Your task to perform on an android device: turn on showing notifications on the lock screen Image 0: 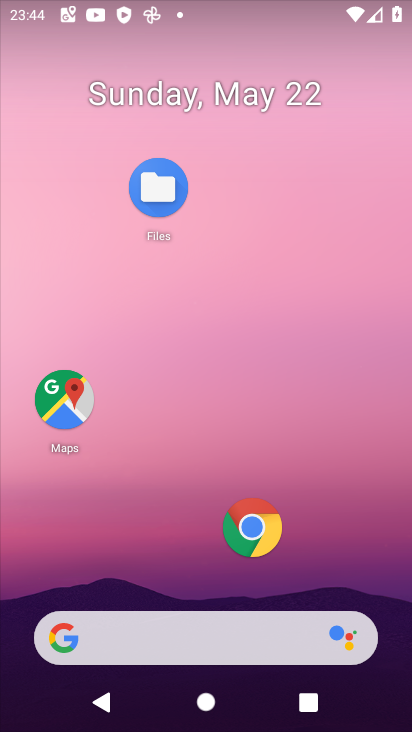
Step 0: drag from (130, 265) to (161, 19)
Your task to perform on an android device: turn on showing notifications on the lock screen Image 1: 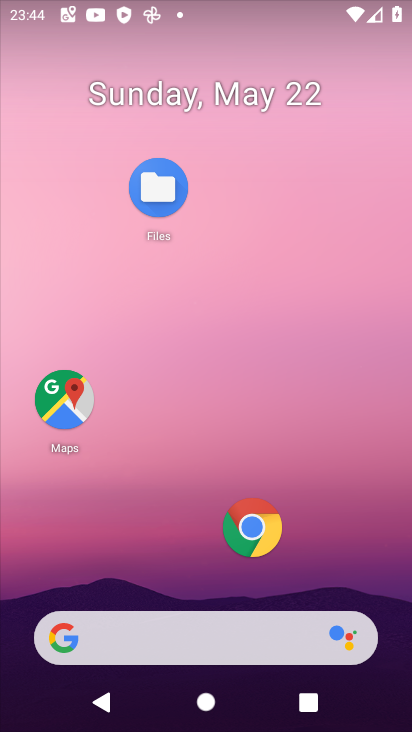
Step 1: drag from (342, 438) to (187, 28)
Your task to perform on an android device: turn on showing notifications on the lock screen Image 2: 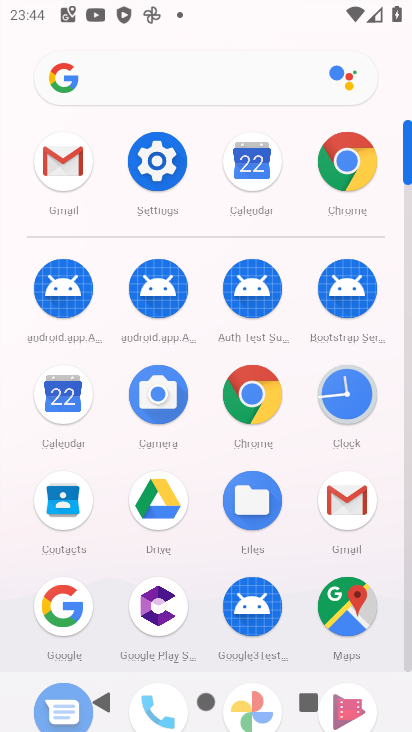
Step 2: click (153, 151)
Your task to perform on an android device: turn on showing notifications on the lock screen Image 3: 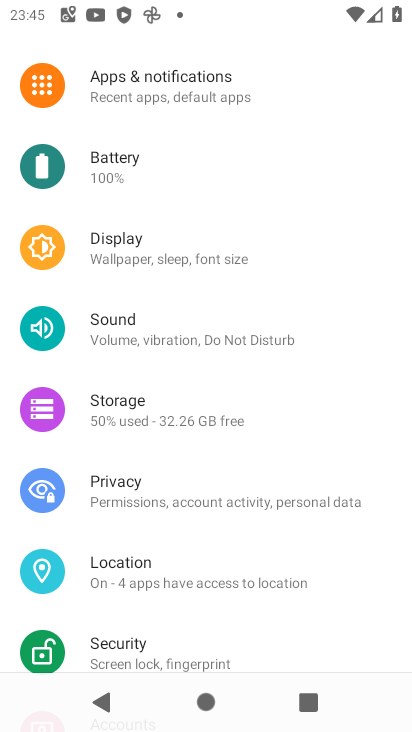
Step 3: click (150, 82)
Your task to perform on an android device: turn on showing notifications on the lock screen Image 4: 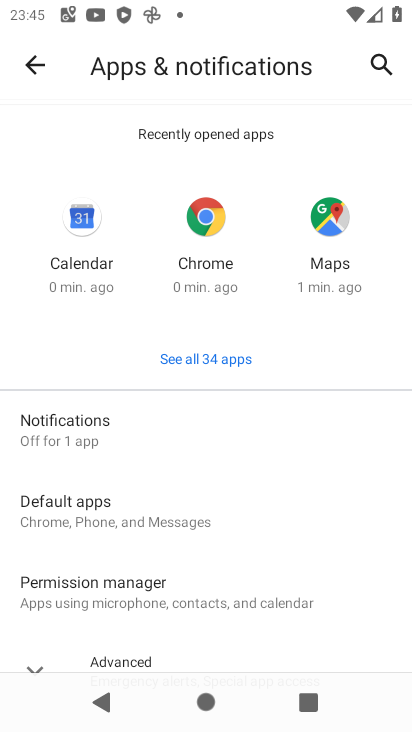
Step 4: drag from (111, 456) to (28, 126)
Your task to perform on an android device: turn on showing notifications on the lock screen Image 5: 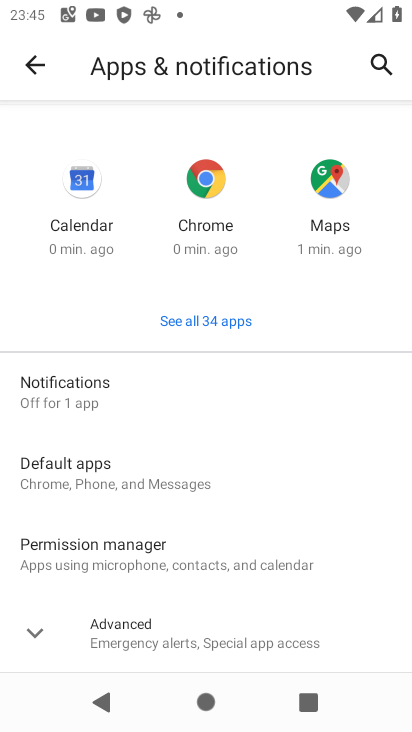
Step 5: drag from (132, 434) to (92, 178)
Your task to perform on an android device: turn on showing notifications on the lock screen Image 6: 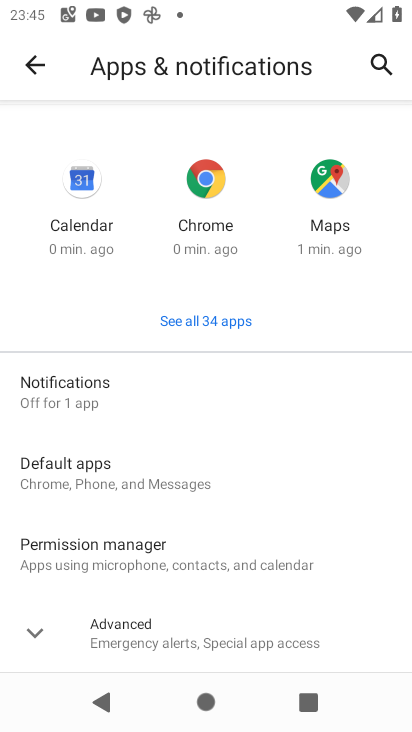
Step 6: click (65, 383)
Your task to perform on an android device: turn on showing notifications on the lock screen Image 7: 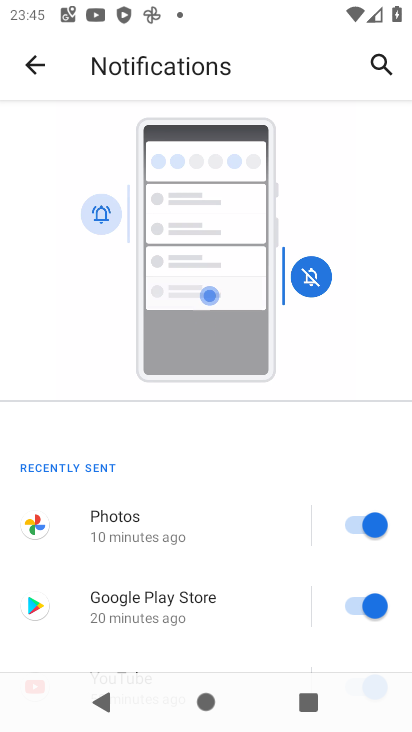
Step 7: drag from (185, 493) to (151, 130)
Your task to perform on an android device: turn on showing notifications on the lock screen Image 8: 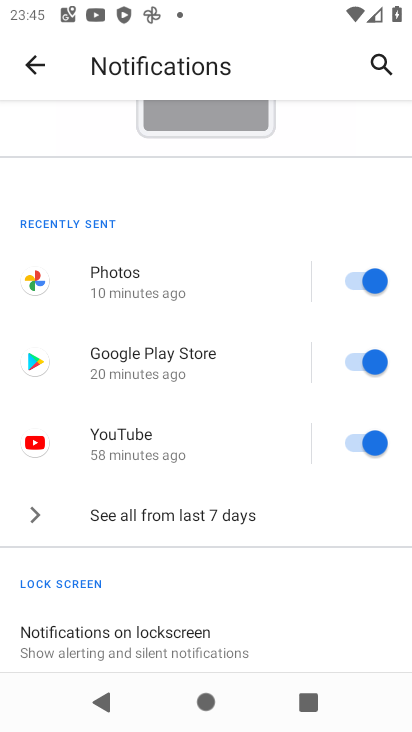
Step 8: drag from (190, 514) to (189, 237)
Your task to perform on an android device: turn on showing notifications on the lock screen Image 9: 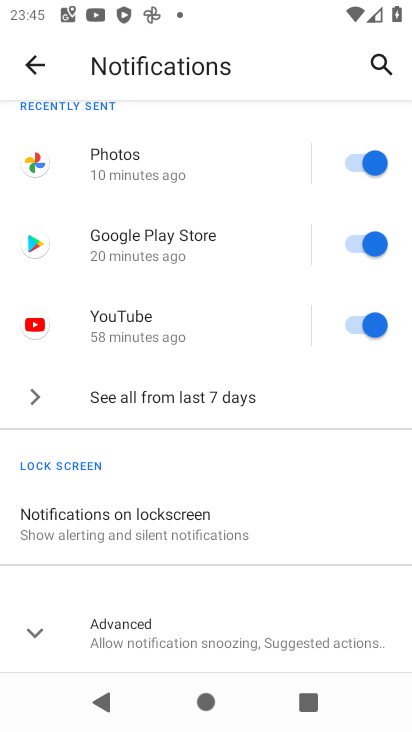
Step 9: click (135, 520)
Your task to perform on an android device: turn on showing notifications on the lock screen Image 10: 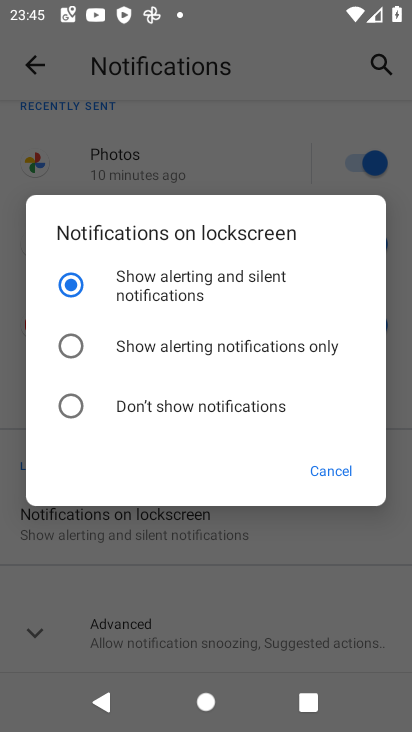
Step 10: task complete